Your task to perform on an android device: What's the weather today? Image 0: 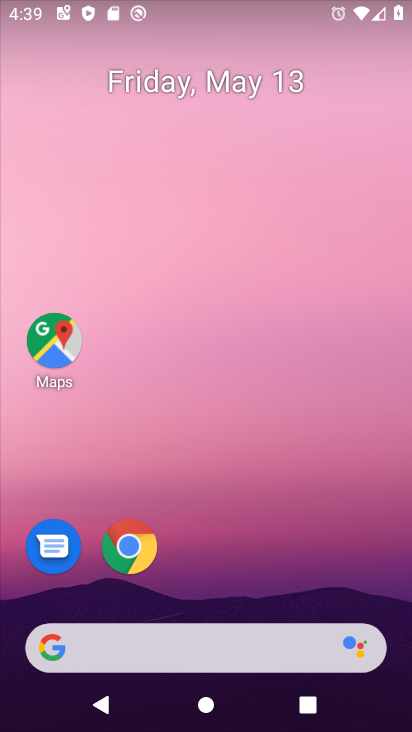
Step 0: click (200, 653)
Your task to perform on an android device: What's the weather today? Image 1: 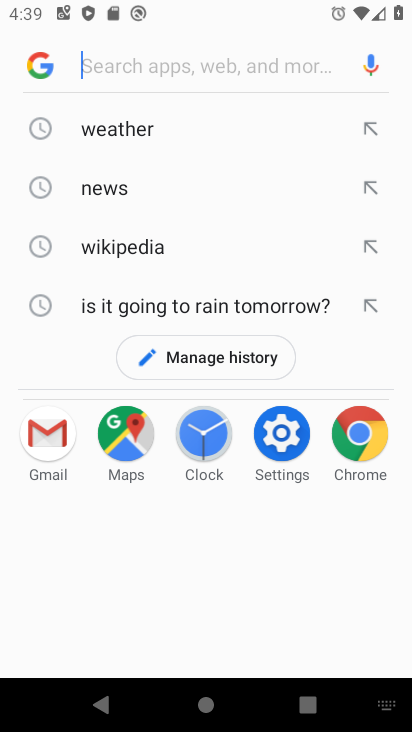
Step 1: click (121, 131)
Your task to perform on an android device: What's the weather today? Image 2: 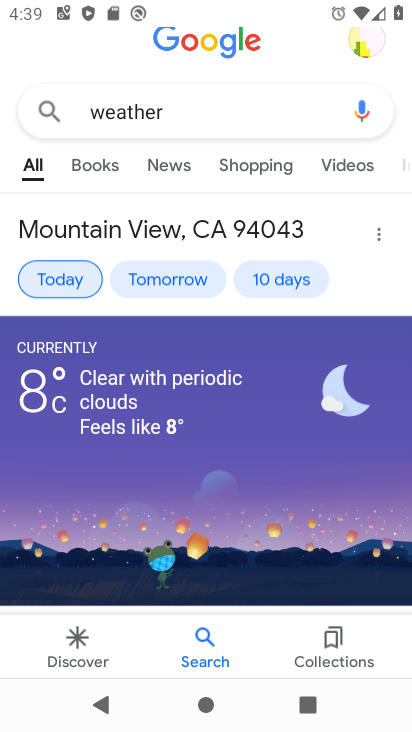
Step 2: task complete